Your task to perform on an android device: turn on the 12-hour format for clock Image 0: 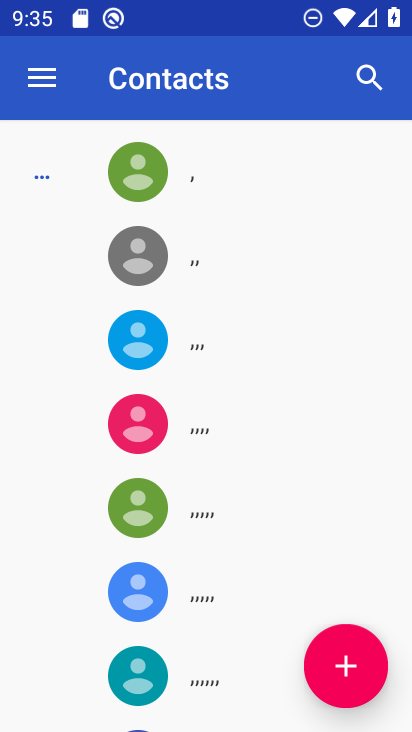
Step 0: press home button
Your task to perform on an android device: turn on the 12-hour format for clock Image 1: 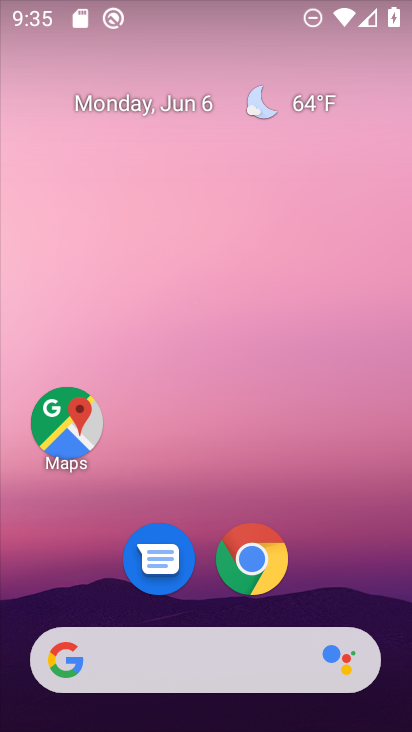
Step 1: drag from (223, 724) to (231, 208)
Your task to perform on an android device: turn on the 12-hour format for clock Image 2: 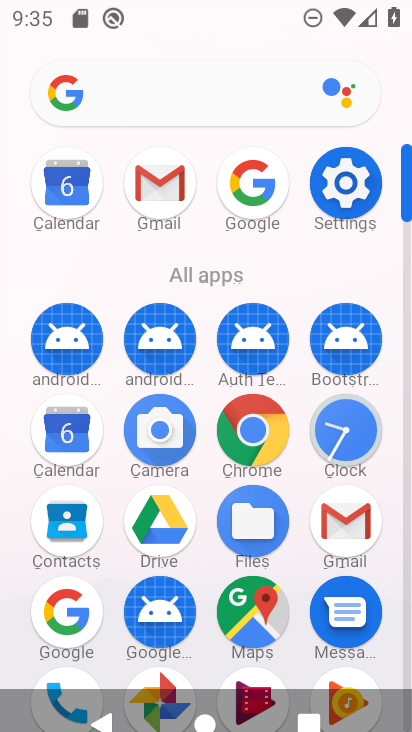
Step 2: click (339, 436)
Your task to perform on an android device: turn on the 12-hour format for clock Image 3: 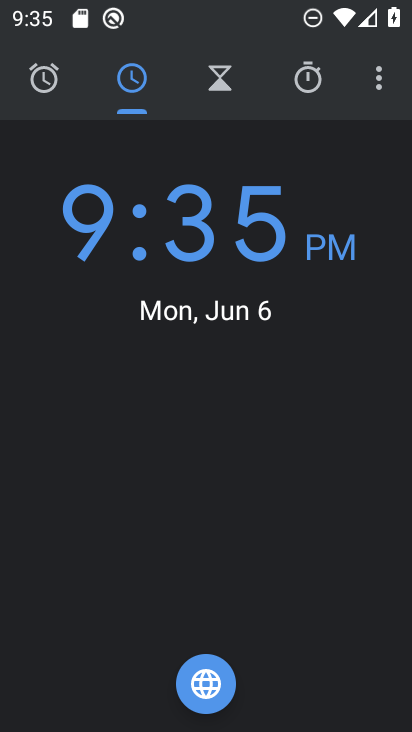
Step 3: click (381, 87)
Your task to perform on an android device: turn on the 12-hour format for clock Image 4: 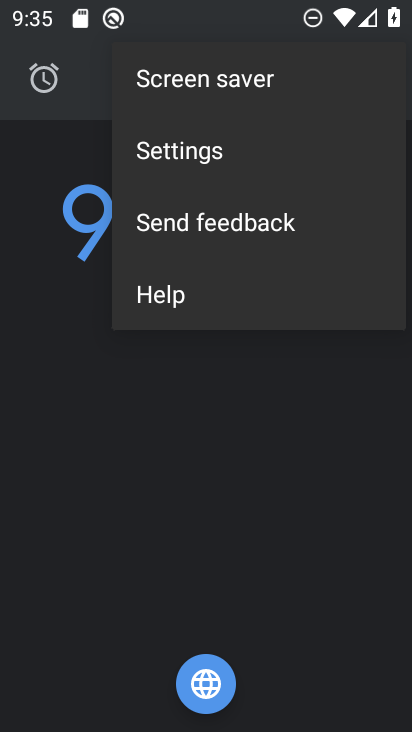
Step 4: click (190, 157)
Your task to perform on an android device: turn on the 12-hour format for clock Image 5: 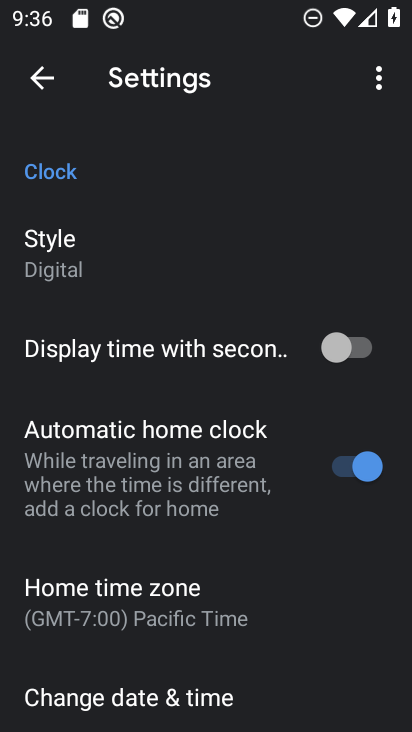
Step 5: click (102, 705)
Your task to perform on an android device: turn on the 12-hour format for clock Image 6: 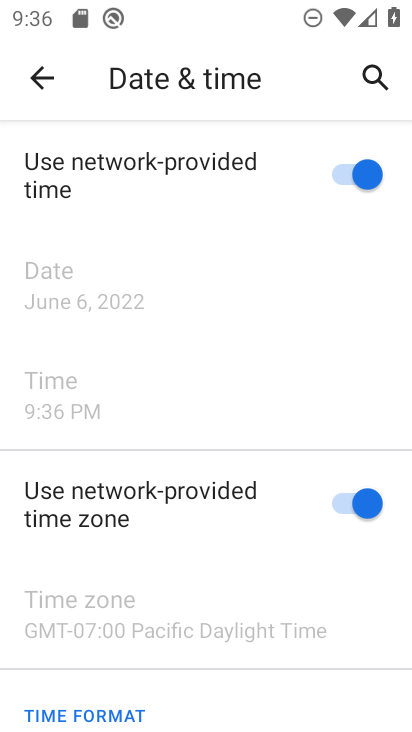
Step 6: task complete